Your task to perform on an android device: Search for Mexican restaurants on Maps Image 0: 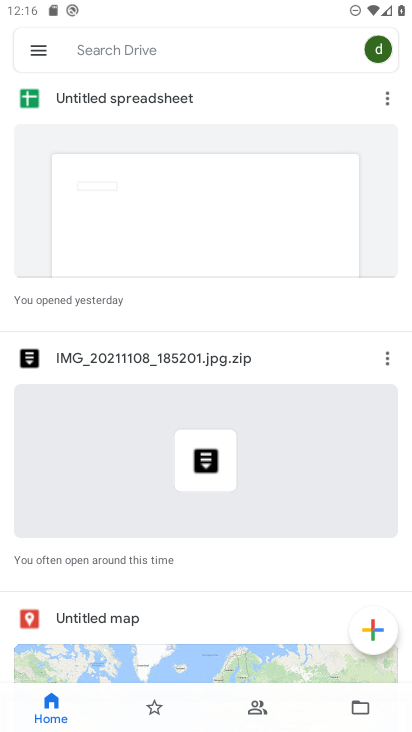
Step 0: press home button
Your task to perform on an android device: Search for Mexican restaurants on Maps Image 1: 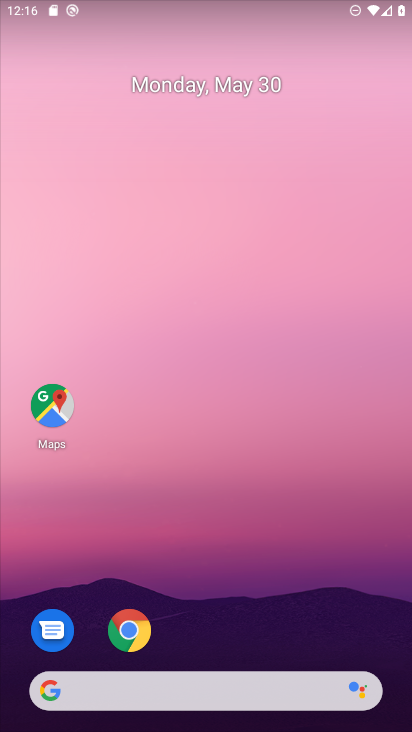
Step 1: click (52, 413)
Your task to perform on an android device: Search for Mexican restaurants on Maps Image 2: 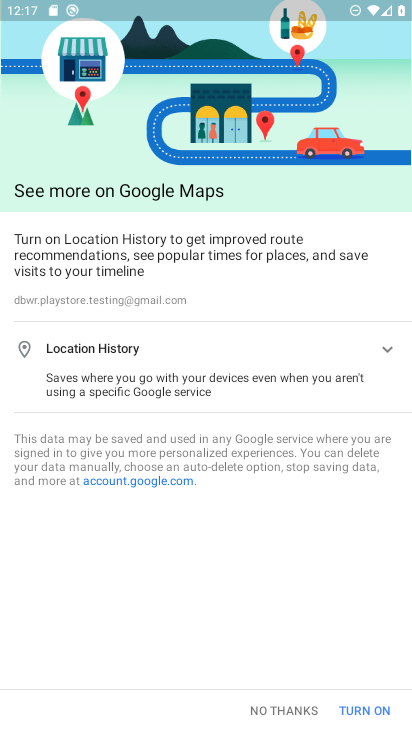
Step 2: click (259, 705)
Your task to perform on an android device: Search for Mexican restaurants on Maps Image 3: 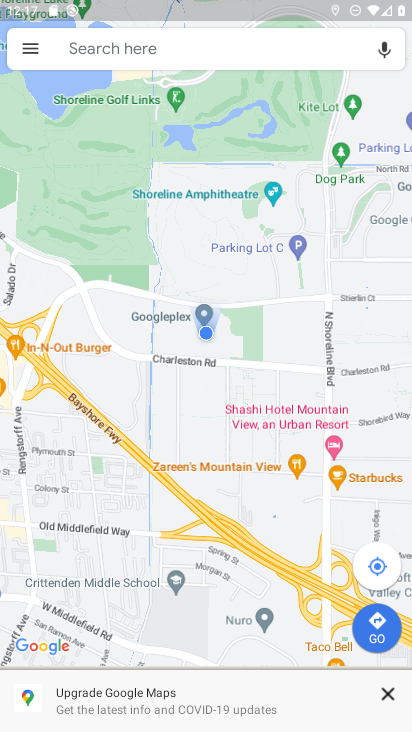
Step 3: click (194, 49)
Your task to perform on an android device: Search for Mexican restaurants on Maps Image 4: 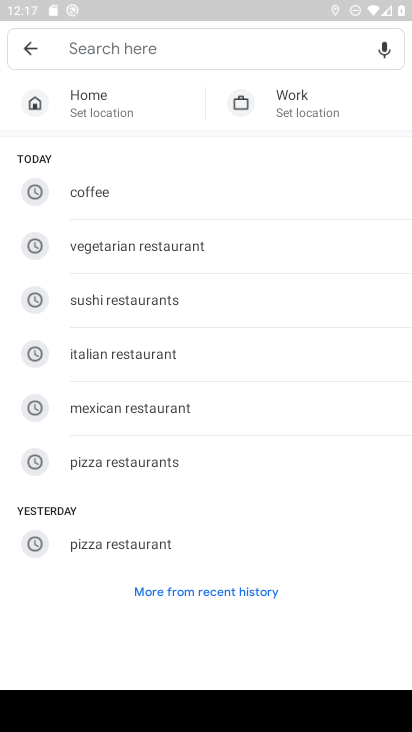
Step 4: click (123, 409)
Your task to perform on an android device: Search for Mexican restaurants on Maps Image 5: 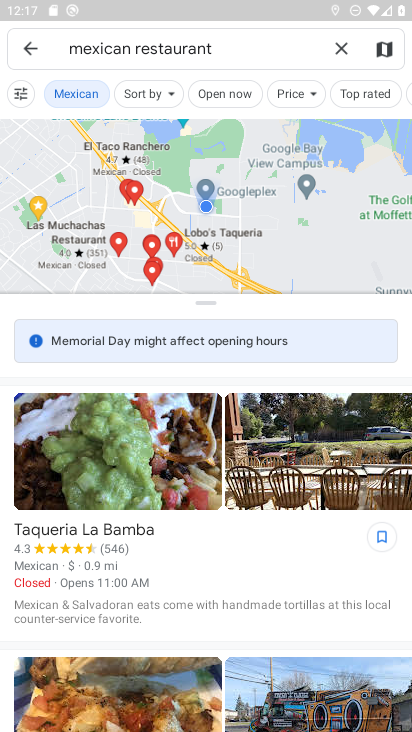
Step 5: task complete